Your task to perform on an android device: open sync settings in chrome Image 0: 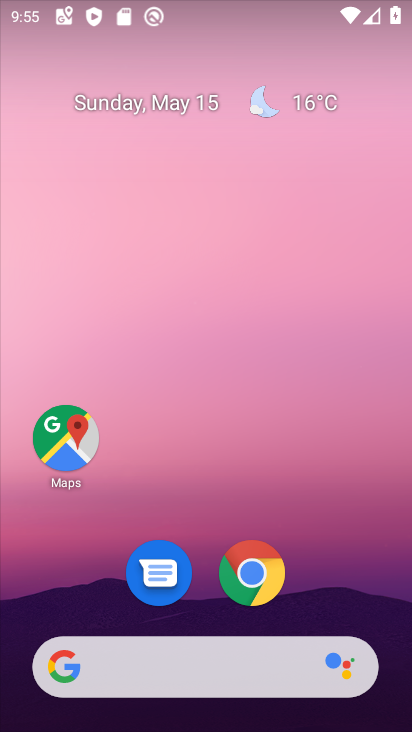
Step 0: press home button
Your task to perform on an android device: open sync settings in chrome Image 1: 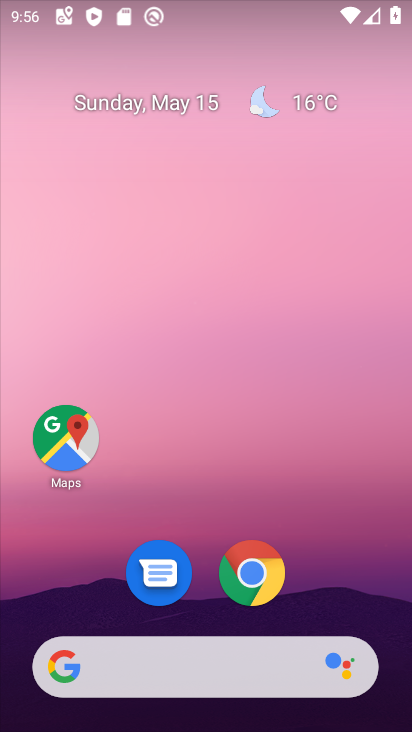
Step 1: click (247, 545)
Your task to perform on an android device: open sync settings in chrome Image 2: 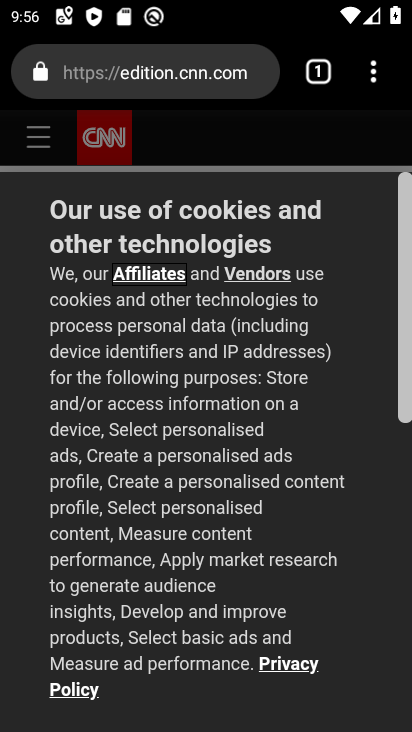
Step 2: drag from (377, 67) to (132, 574)
Your task to perform on an android device: open sync settings in chrome Image 3: 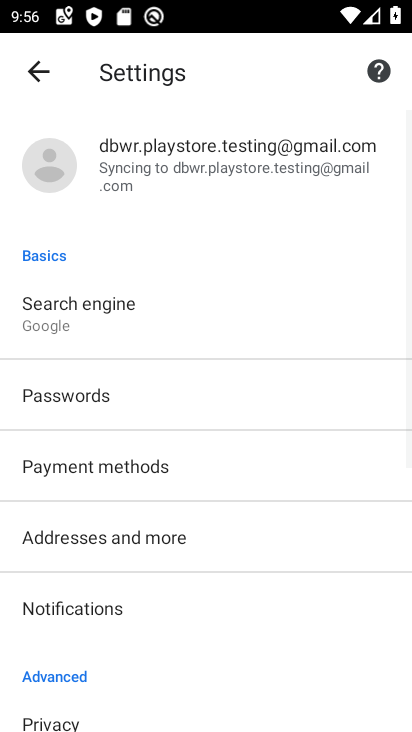
Step 3: click (113, 186)
Your task to perform on an android device: open sync settings in chrome Image 4: 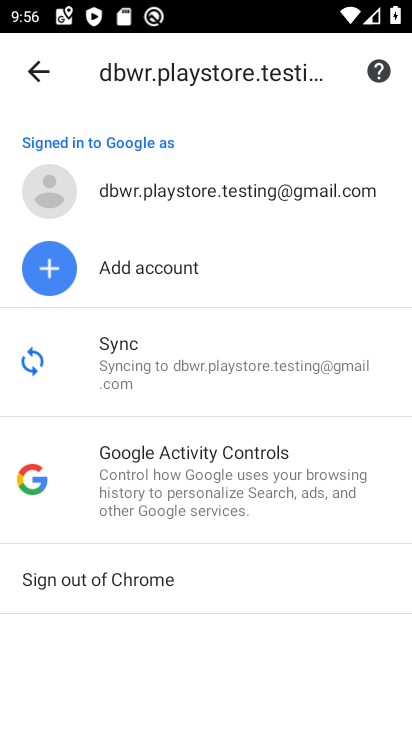
Step 4: click (219, 386)
Your task to perform on an android device: open sync settings in chrome Image 5: 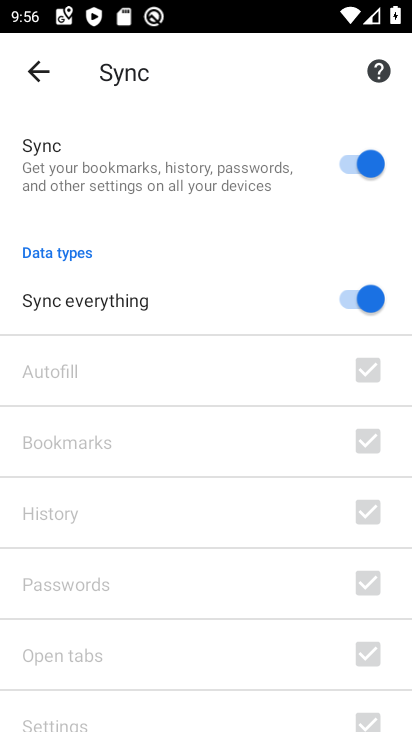
Step 5: task complete